Your task to perform on an android device: Go to Reddit.com Image 0: 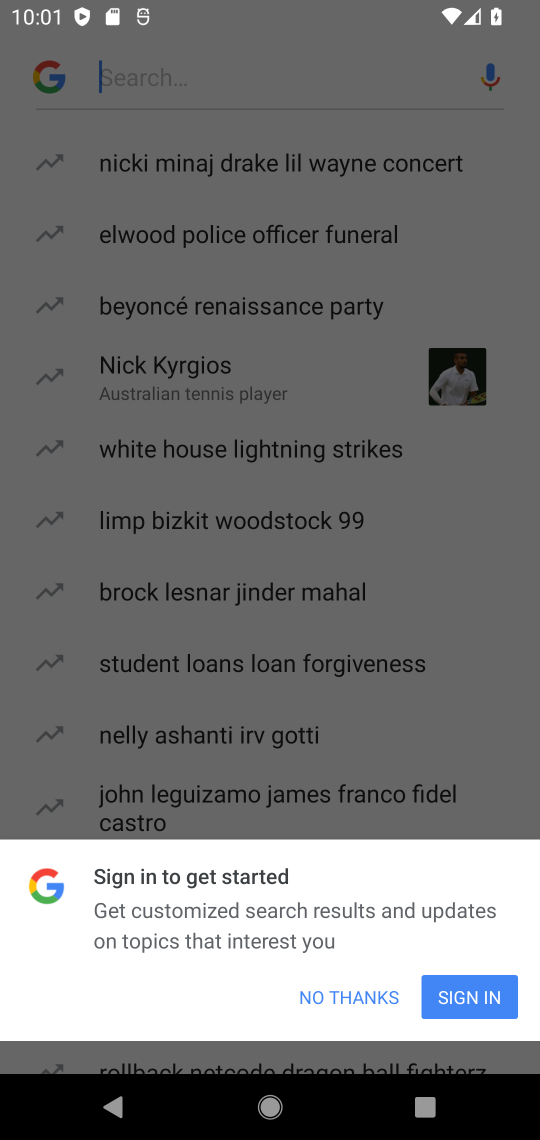
Step 0: press home button
Your task to perform on an android device: Go to Reddit.com Image 1: 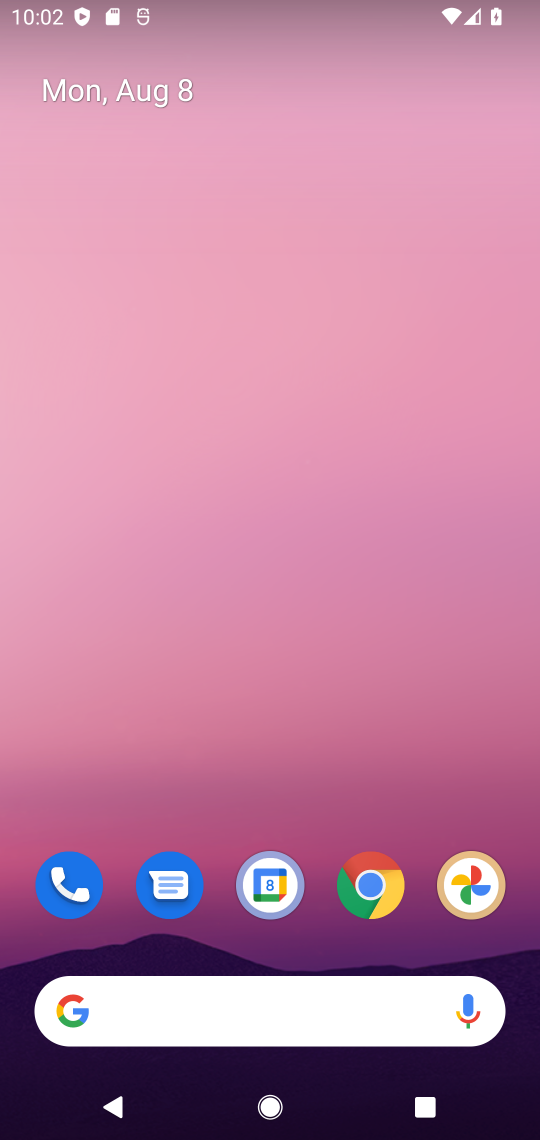
Step 1: click (184, 1013)
Your task to perform on an android device: Go to Reddit.com Image 2: 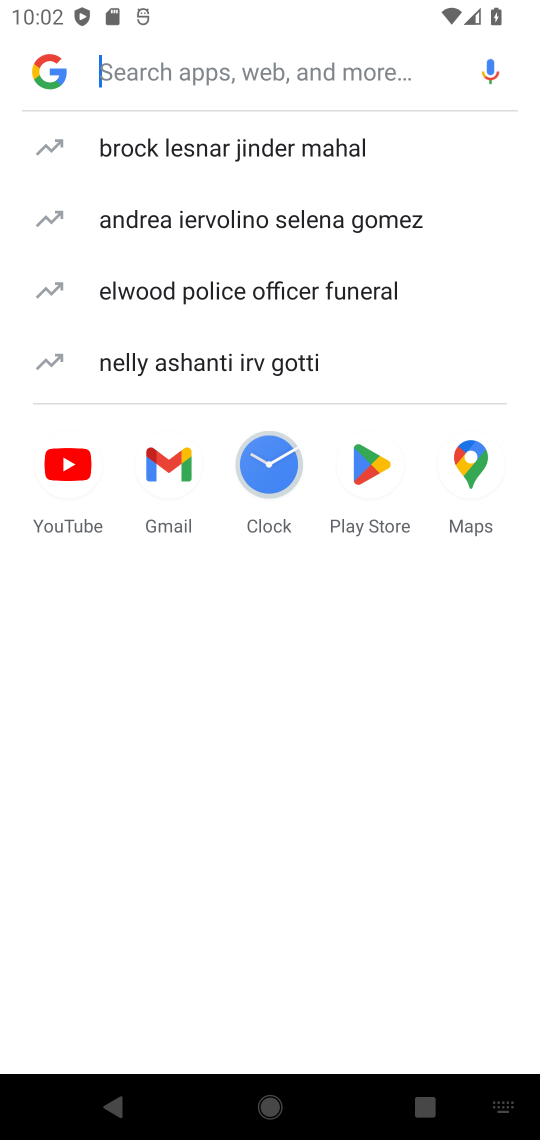
Step 2: type "reddit.com"
Your task to perform on an android device: Go to Reddit.com Image 3: 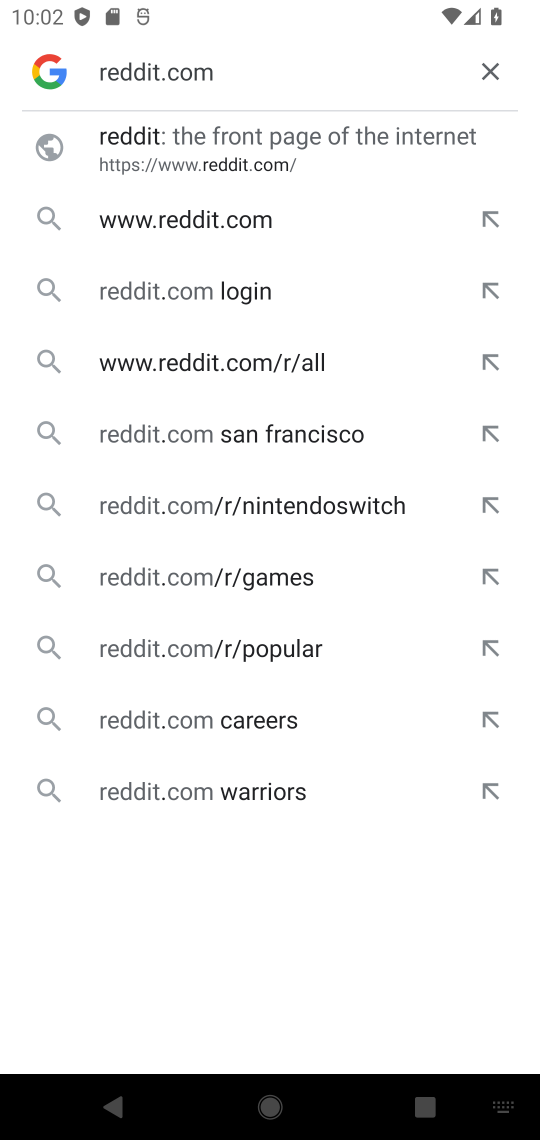
Step 3: click (359, 142)
Your task to perform on an android device: Go to Reddit.com Image 4: 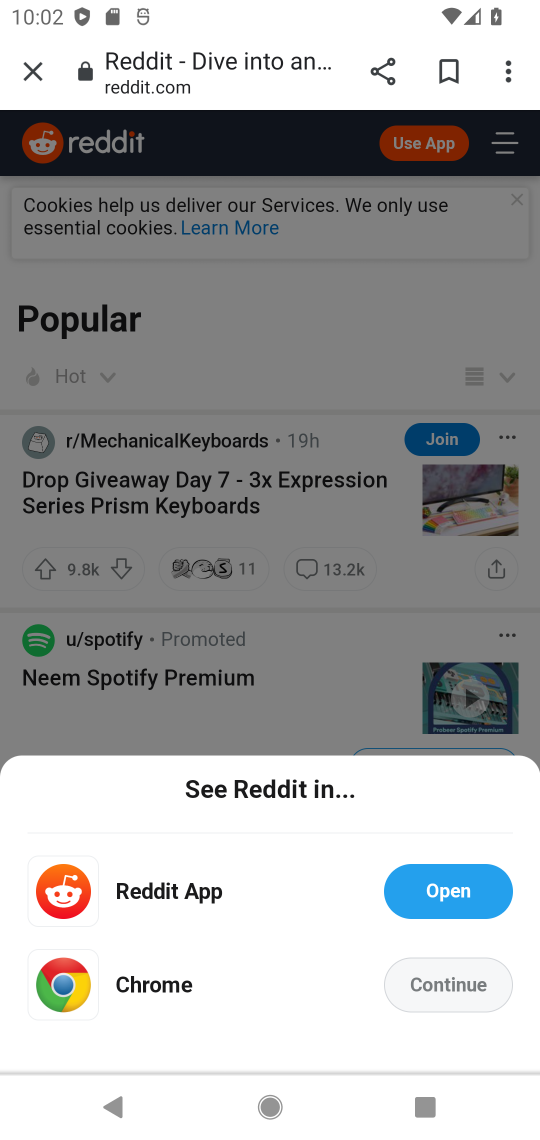
Step 4: task complete